Your task to perform on an android device: Find coffee shops on Maps Image 0: 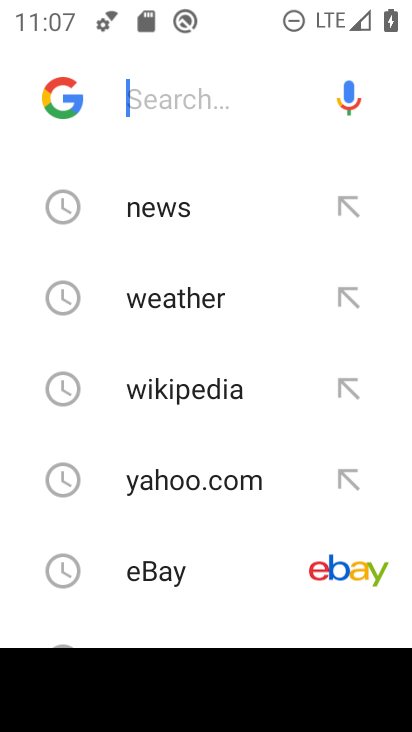
Step 0: press home button
Your task to perform on an android device: Find coffee shops on Maps Image 1: 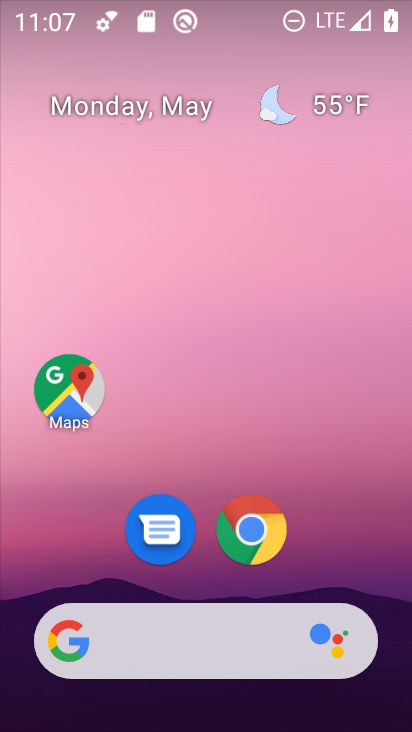
Step 1: click (89, 400)
Your task to perform on an android device: Find coffee shops on Maps Image 2: 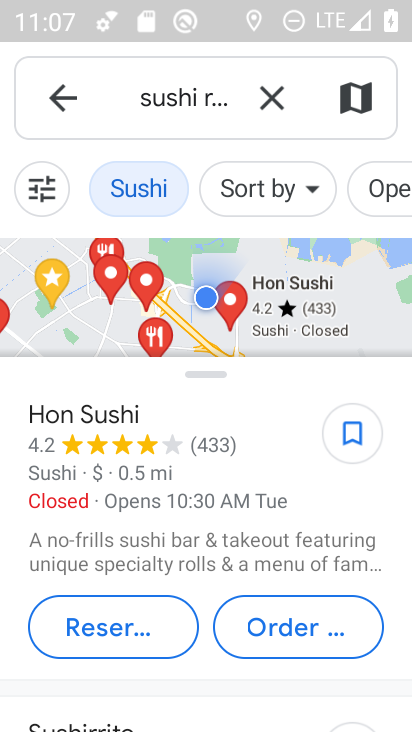
Step 2: click (253, 89)
Your task to perform on an android device: Find coffee shops on Maps Image 3: 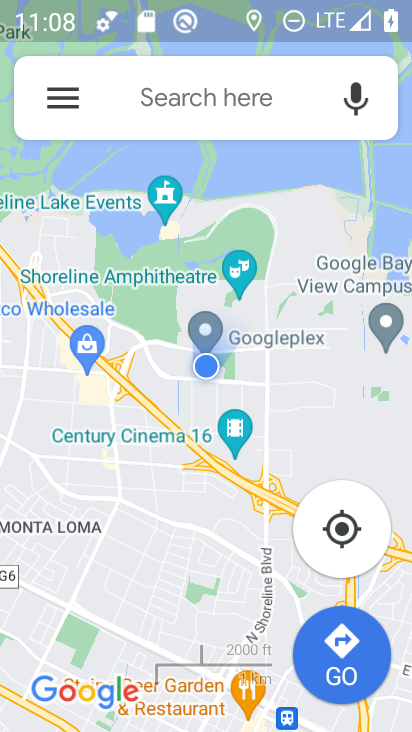
Step 3: click (213, 106)
Your task to perform on an android device: Find coffee shops on Maps Image 4: 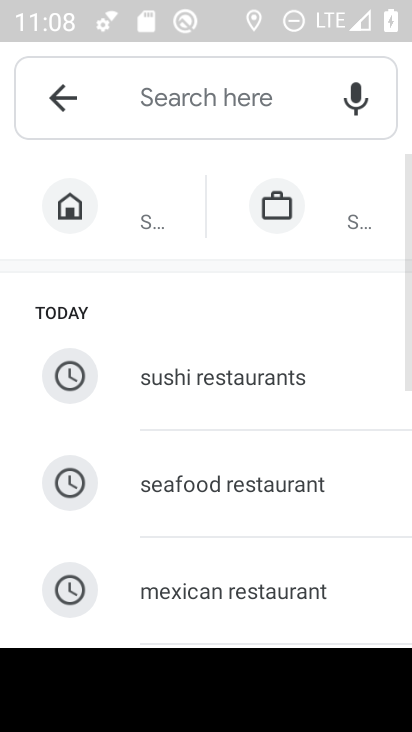
Step 4: drag from (171, 516) to (165, 131)
Your task to perform on an android device: Find coffee shops on Maps Image 5: 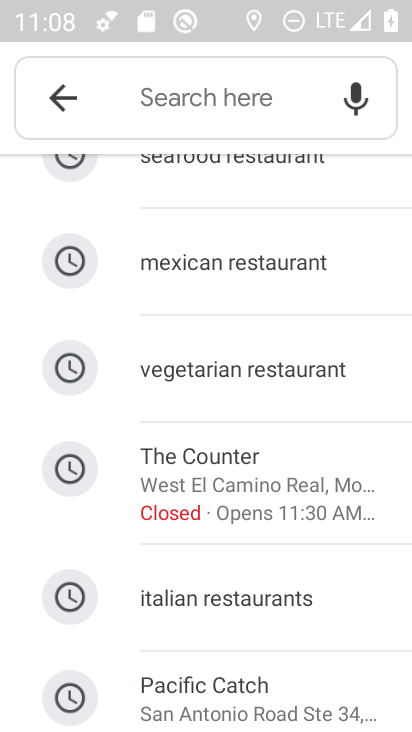
Step 5: drag from (163, 592) to (176, 173)
Your task to perform on an android device: Find coffee shops on Maps Image 6: 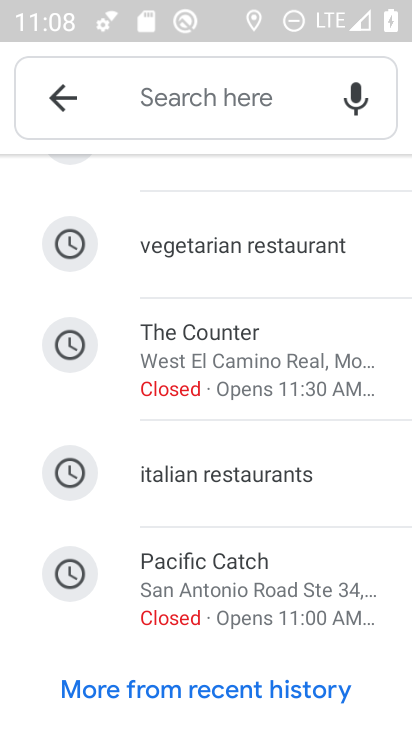
Step 6: click (187, 107)
Your task to perform on an android device: Find coffee shops on Maps Image 7: 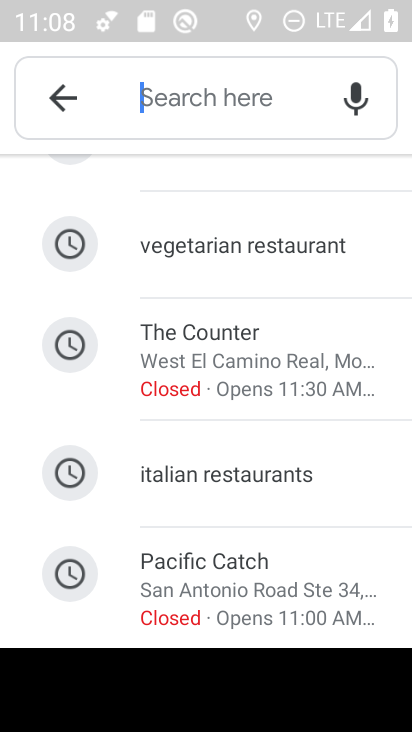
Step 7: type "coffee shops"
Your task to perform on an android device: Find coffee shops on Maps Image 8: 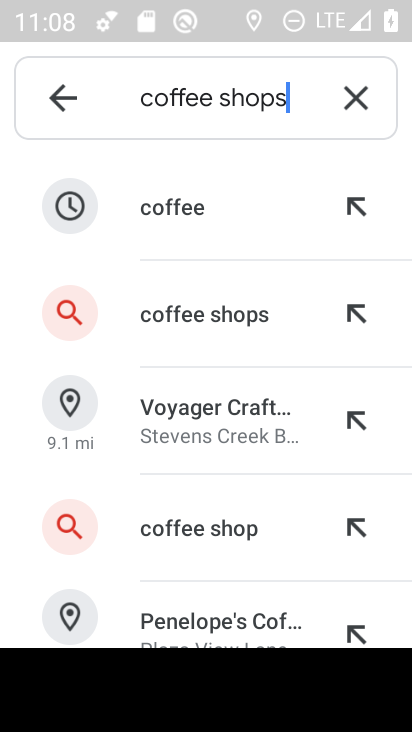
Step 8: click (204, 333)
Your task to perform on an android device: Find coffee shops on Maps Image 9: 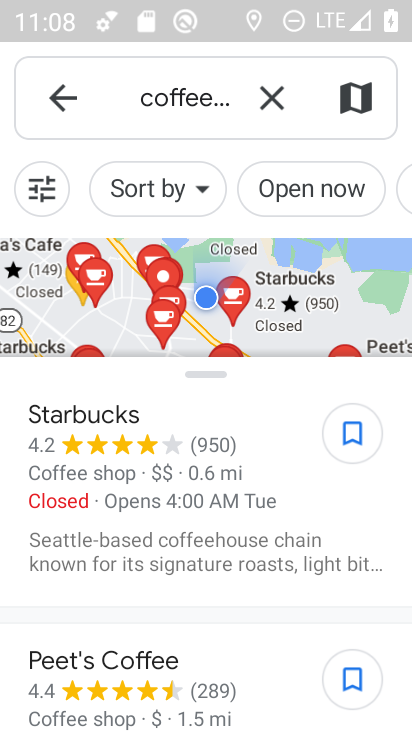
Step 9: task complete